Your task to perform on an android device: Add "logitech g502" to the cart on walmart Image 0: 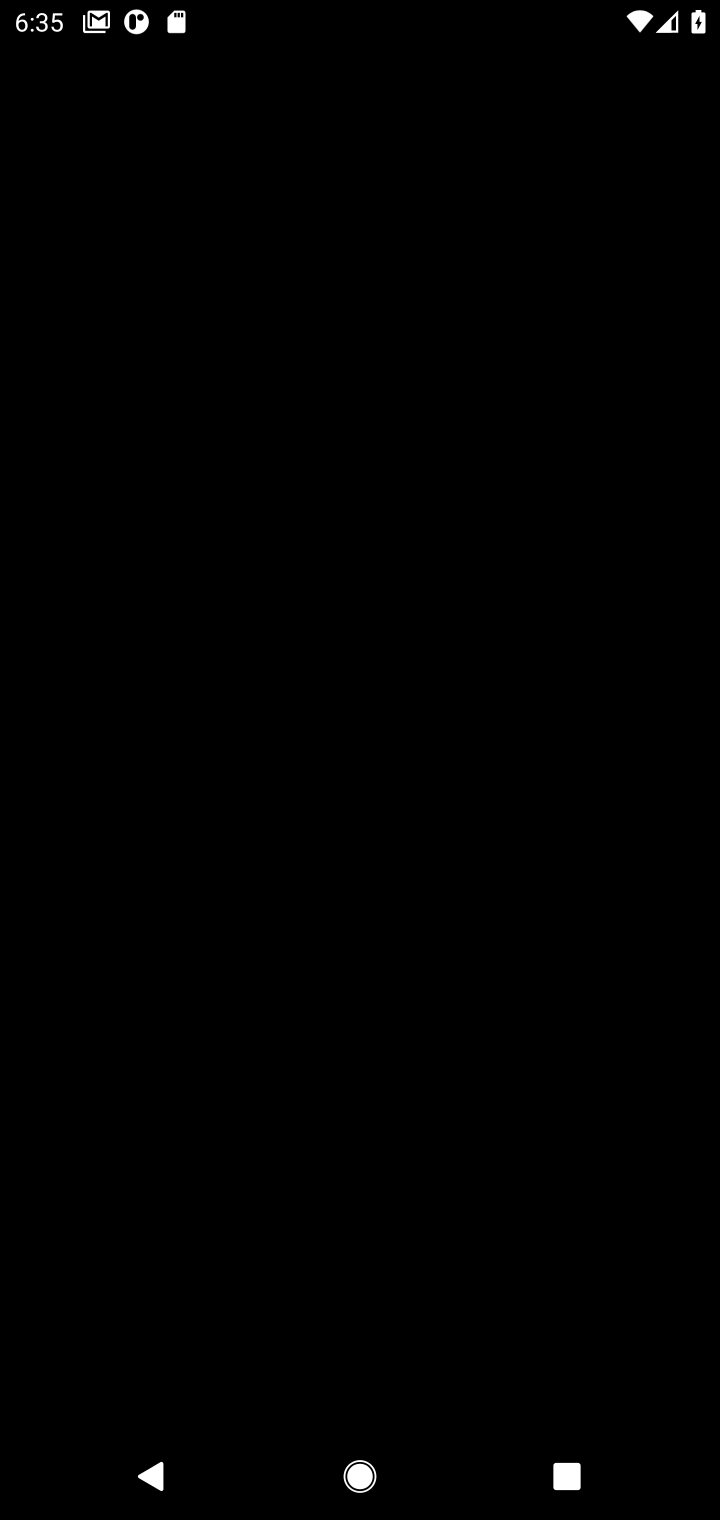
Step 0: press home button
Your task to perform on an android device: Add "logitech g502" to the cart on walmart Image 1: 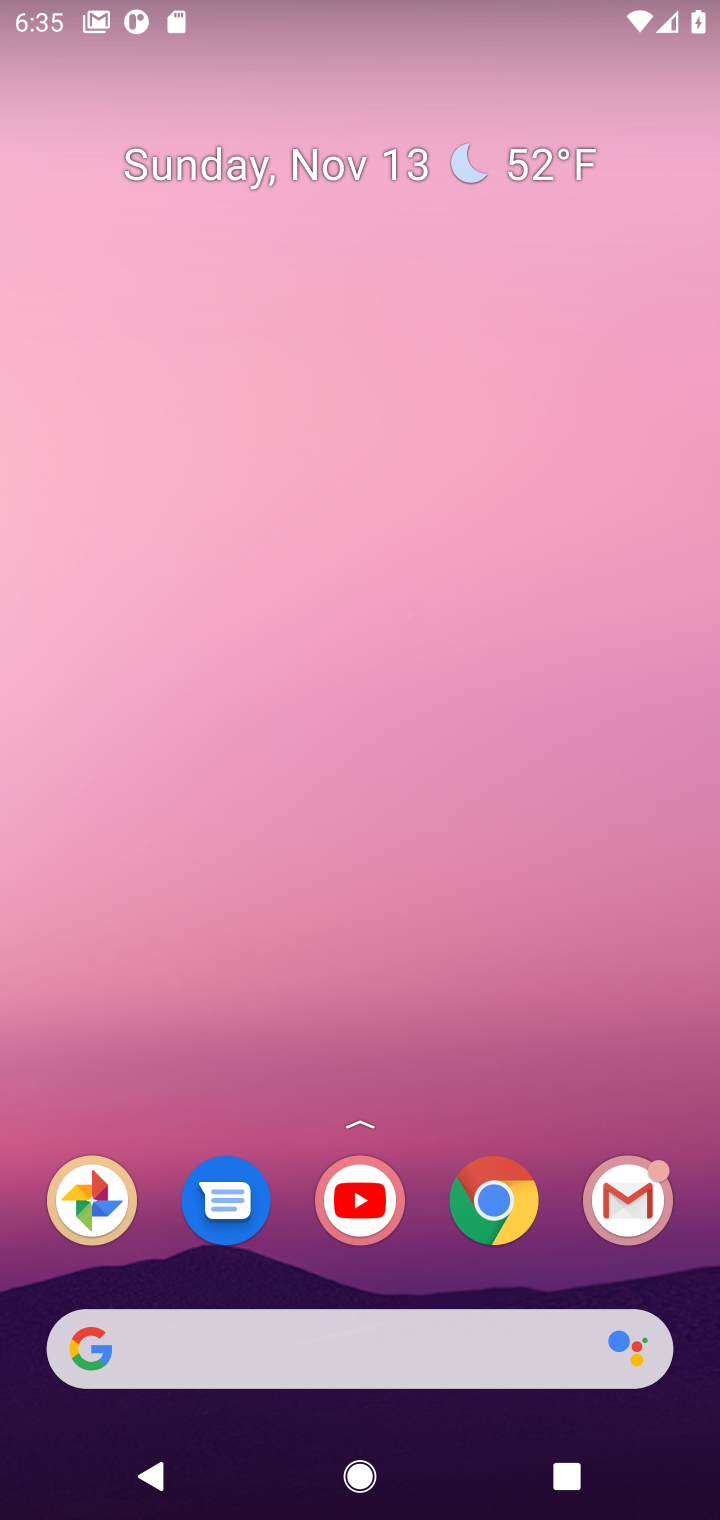
Step 1: press home button
Your task to perform on an android device: Add "logitech g502" to the cart on walmart Image 2: 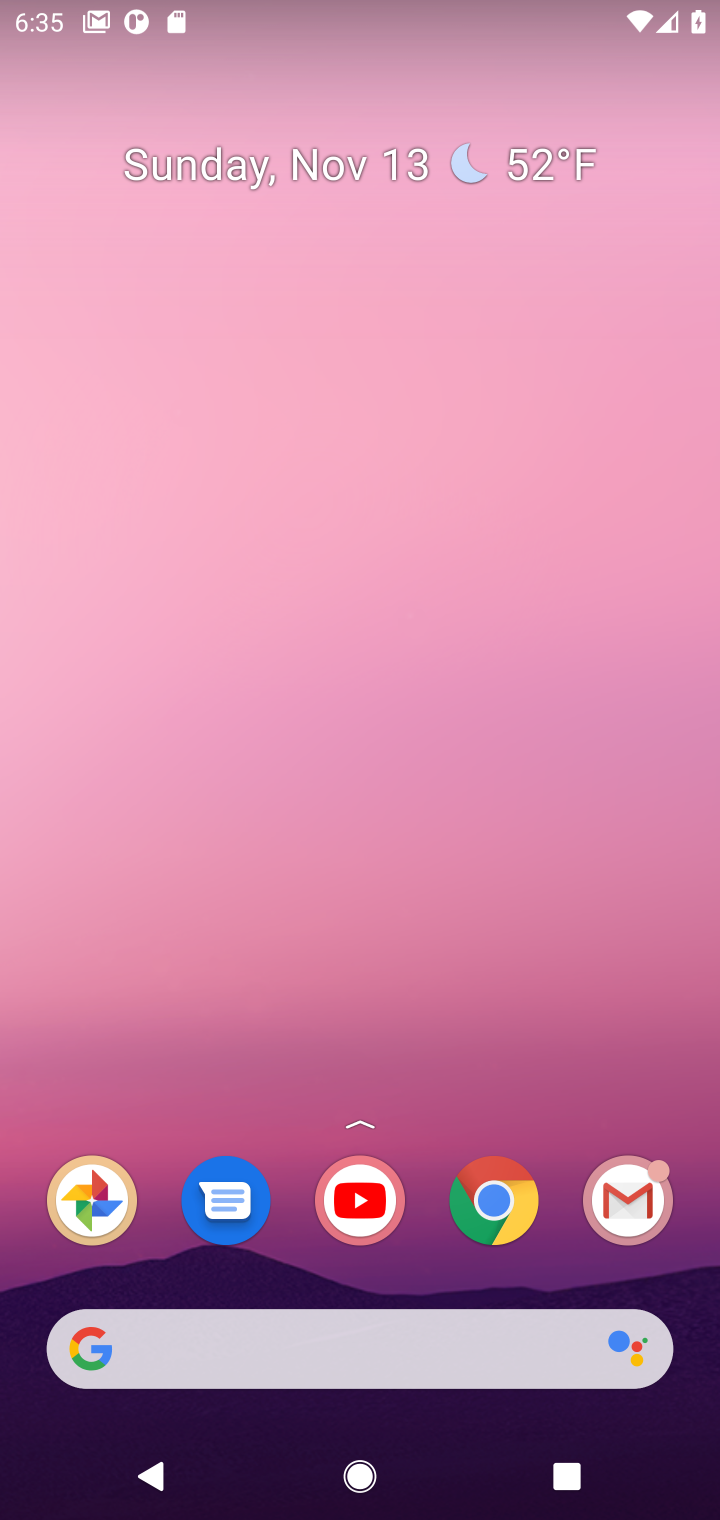
Step 2: click (485, 1182)
Your task to perform on an android device: Add "logitech g502" to the cart on walmart Image 3: 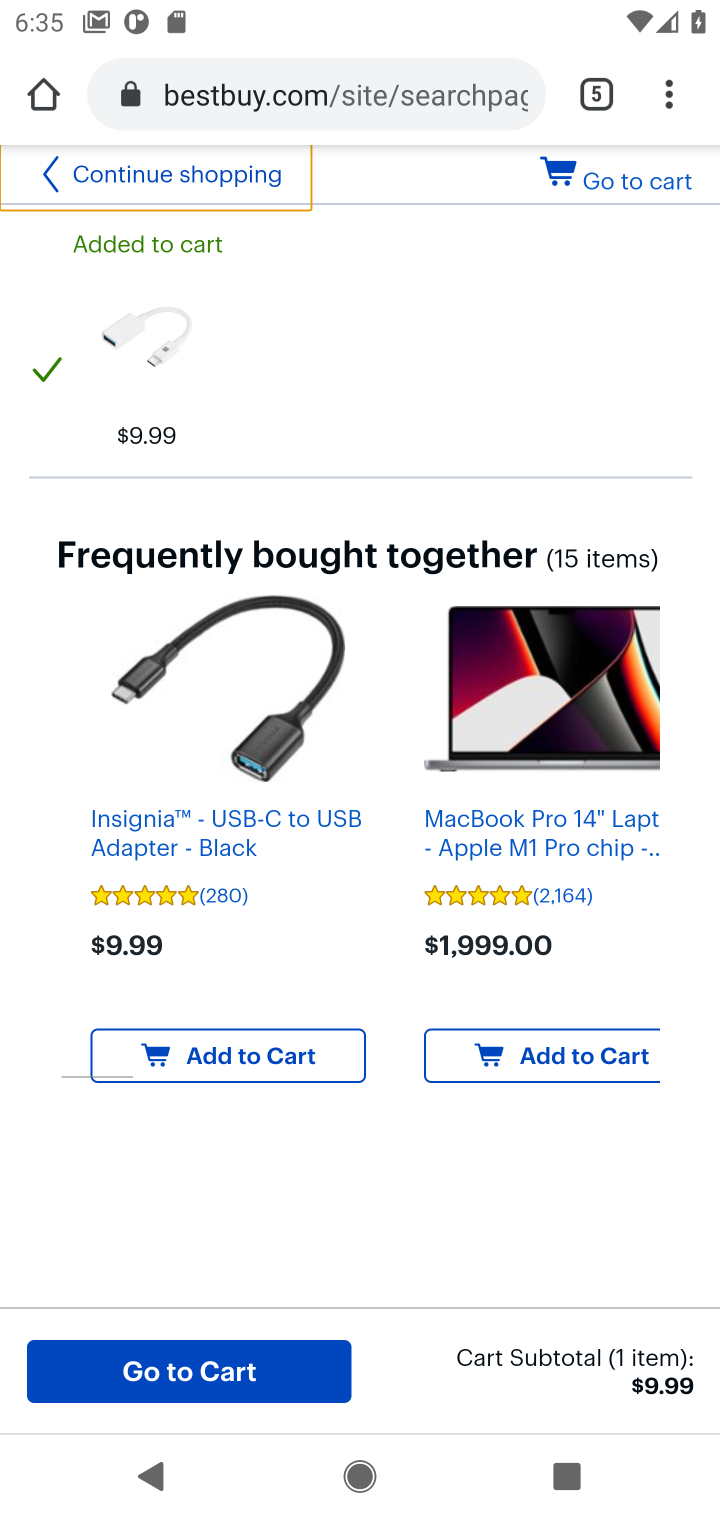
Step 3: click (587, 89)
Your task to perform on an android device: Add "logitech g502" to the cart on walmart Image 4: 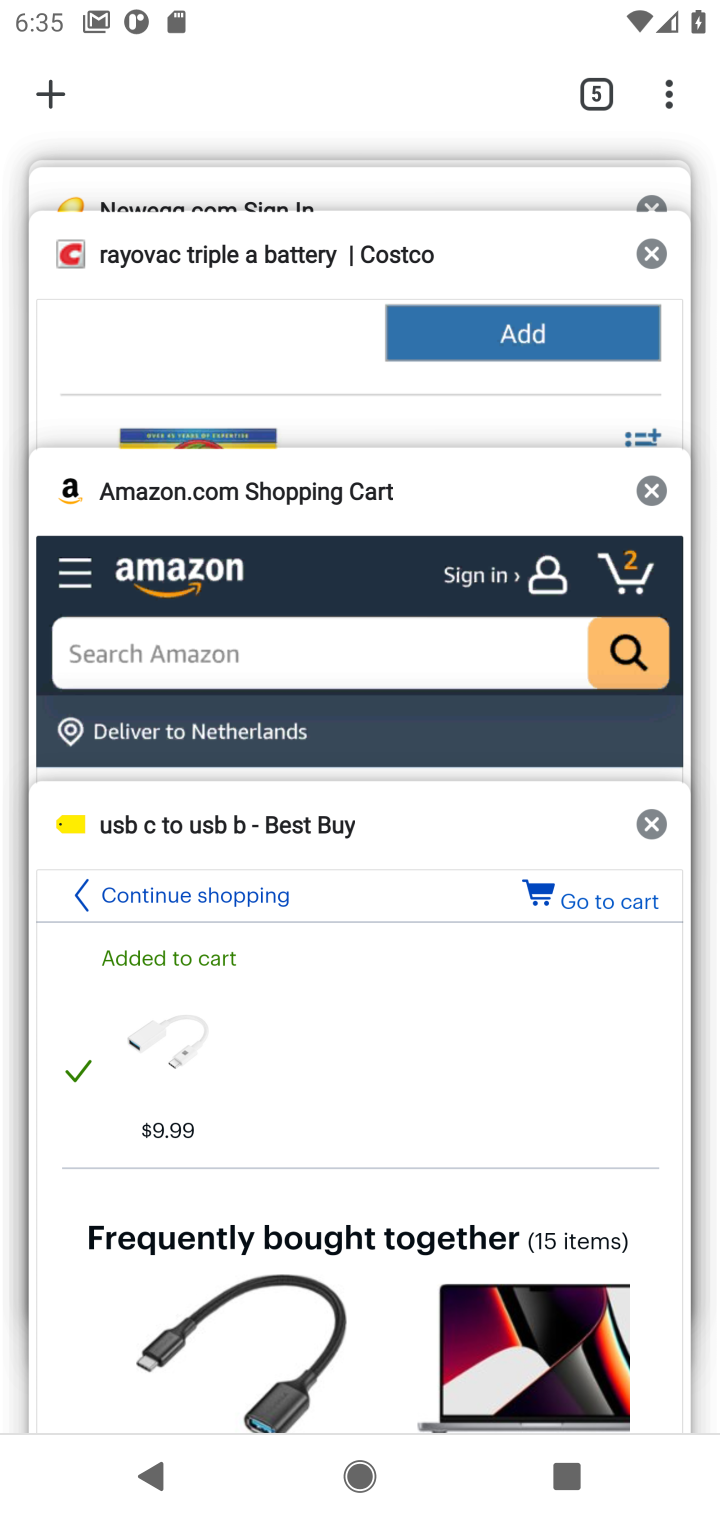
Step 4: click (49, 92)
Your task to perform on an android device: Add "logitech g502" to the cart on walmart Image 5: 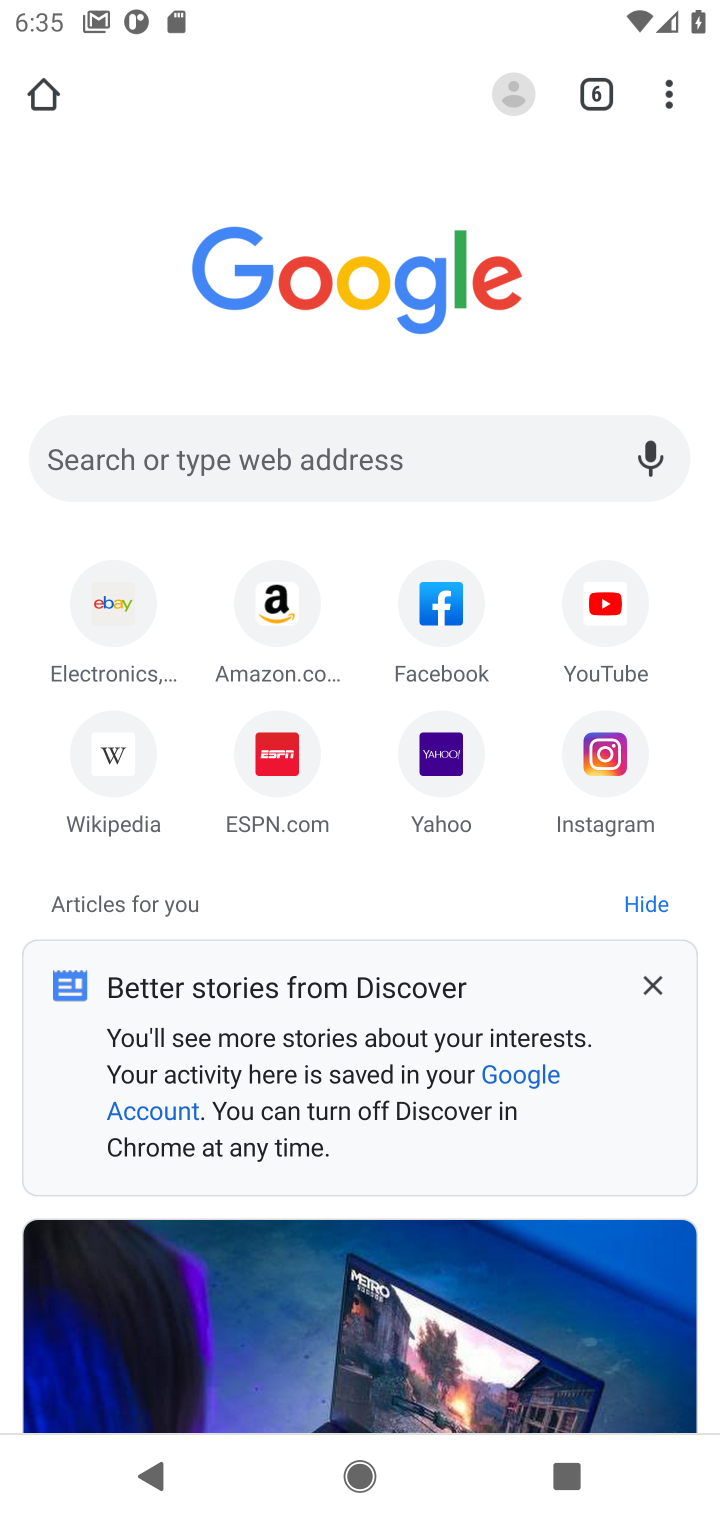
Step 5: click (225, 453)
Your task to perform on an android device: Add "logitech g502" to the cart on walmart Image 6: 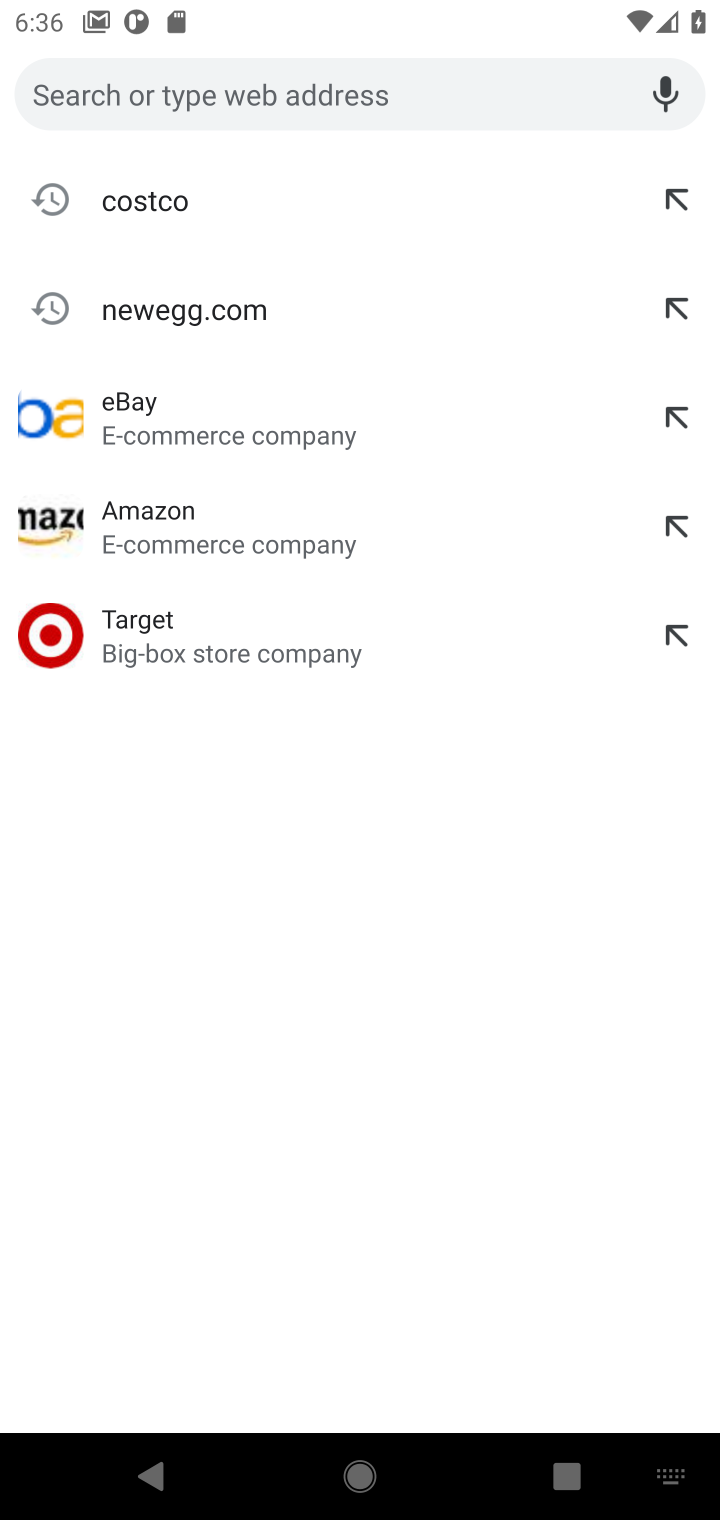
Step 6: type "walmart"
Your task to perform on an android device: Add "logitech g502" to the cart on walmart Image 7: 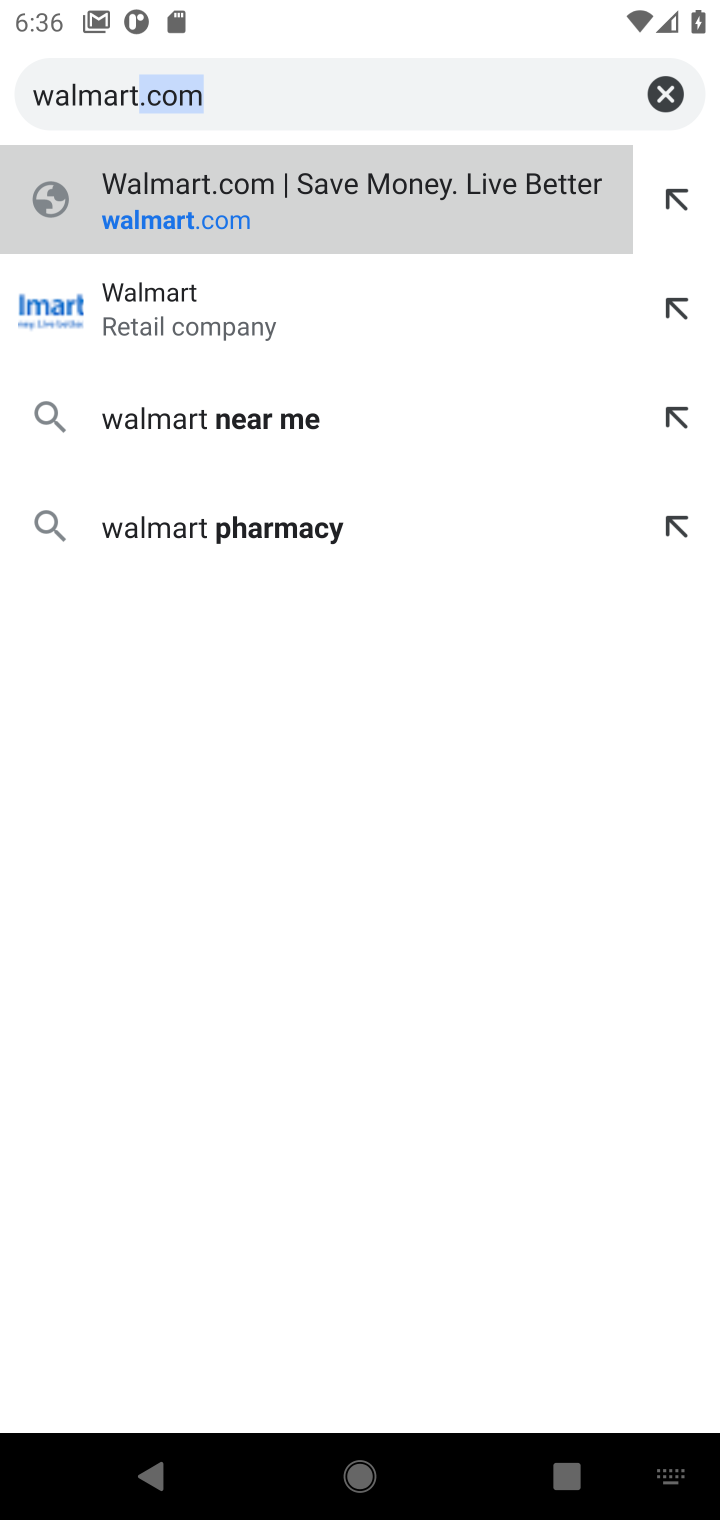
Step 7: click (189, 211)
Your task to perform on an android device: Add "logitech g502" to the cart on walmart Image 8: 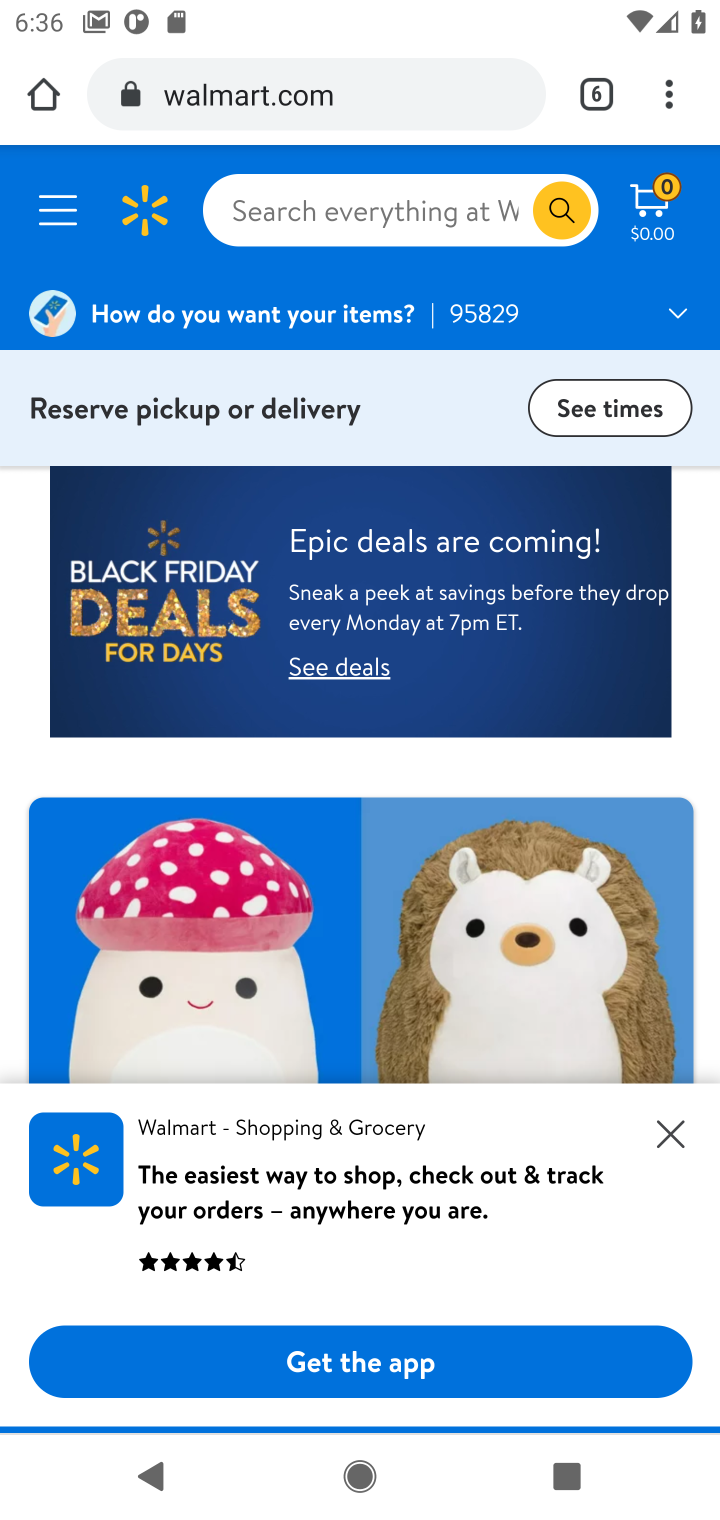
Step 8: click (306, 216)
Your task to perform on an android device: Add "logitech g502" to the cart on walmart Image 9: 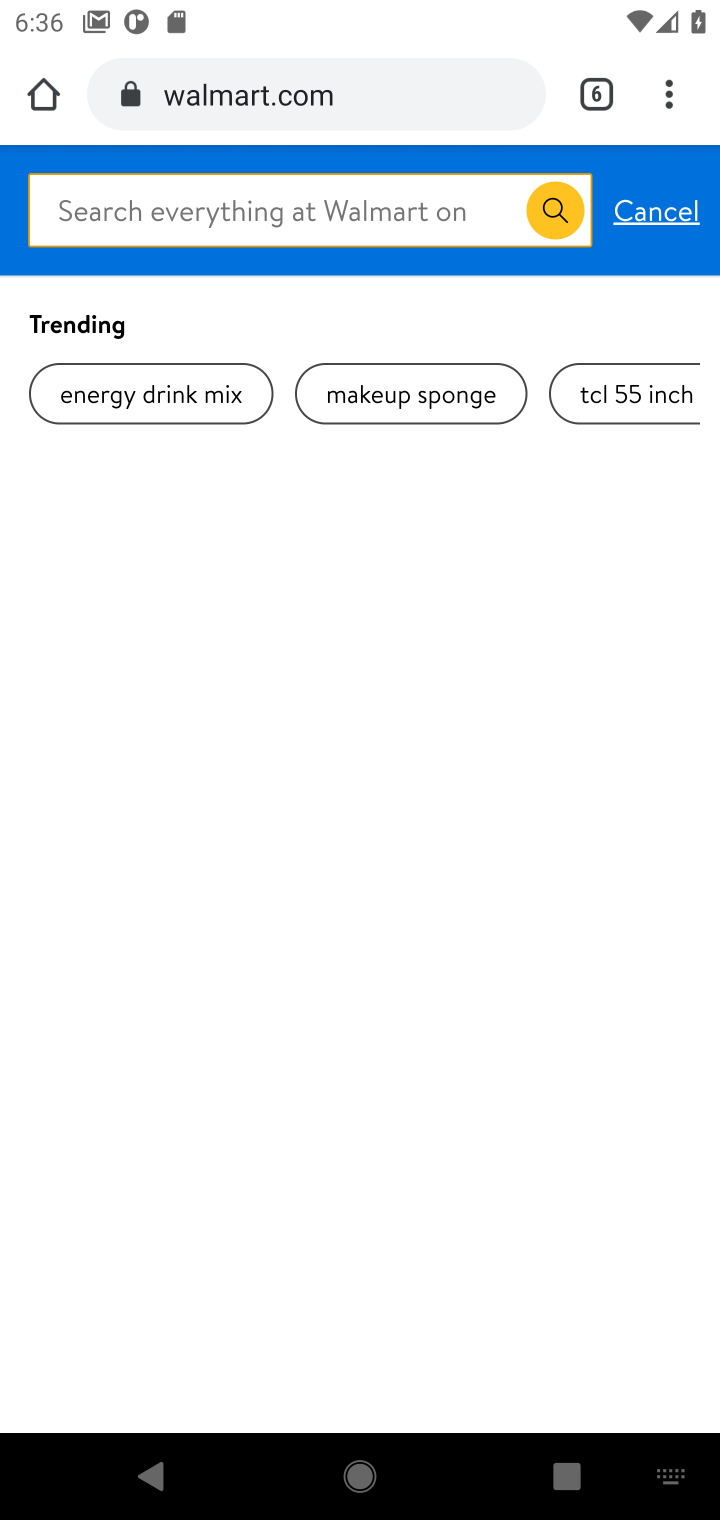
Step 9: type "logitech g502"
Your task to perform on an android device: Add "logitech g502" to the cart on walmart Image 10: 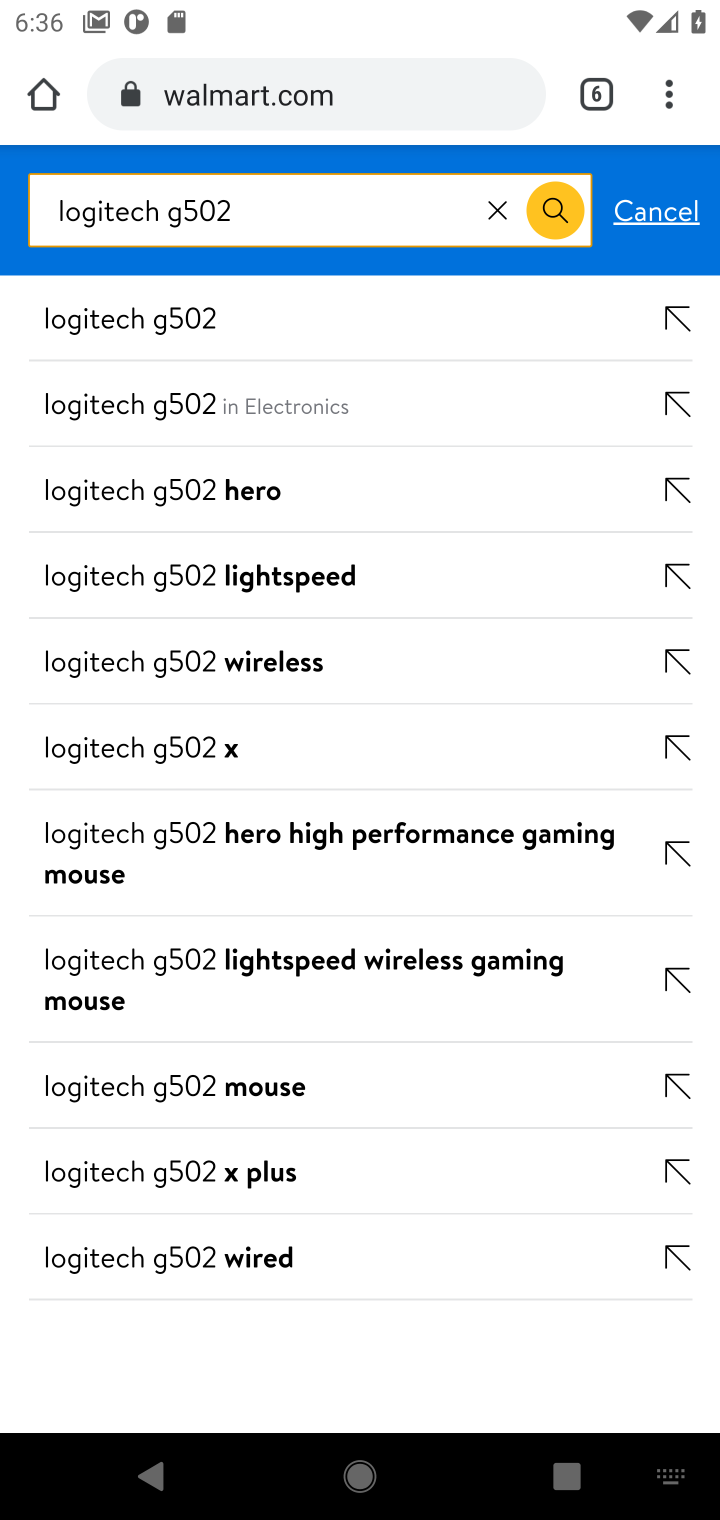
Step 10: click (164, 394)
Your task to perform on an android device: Add "logitech g502" to the cart on walmart Image 11: 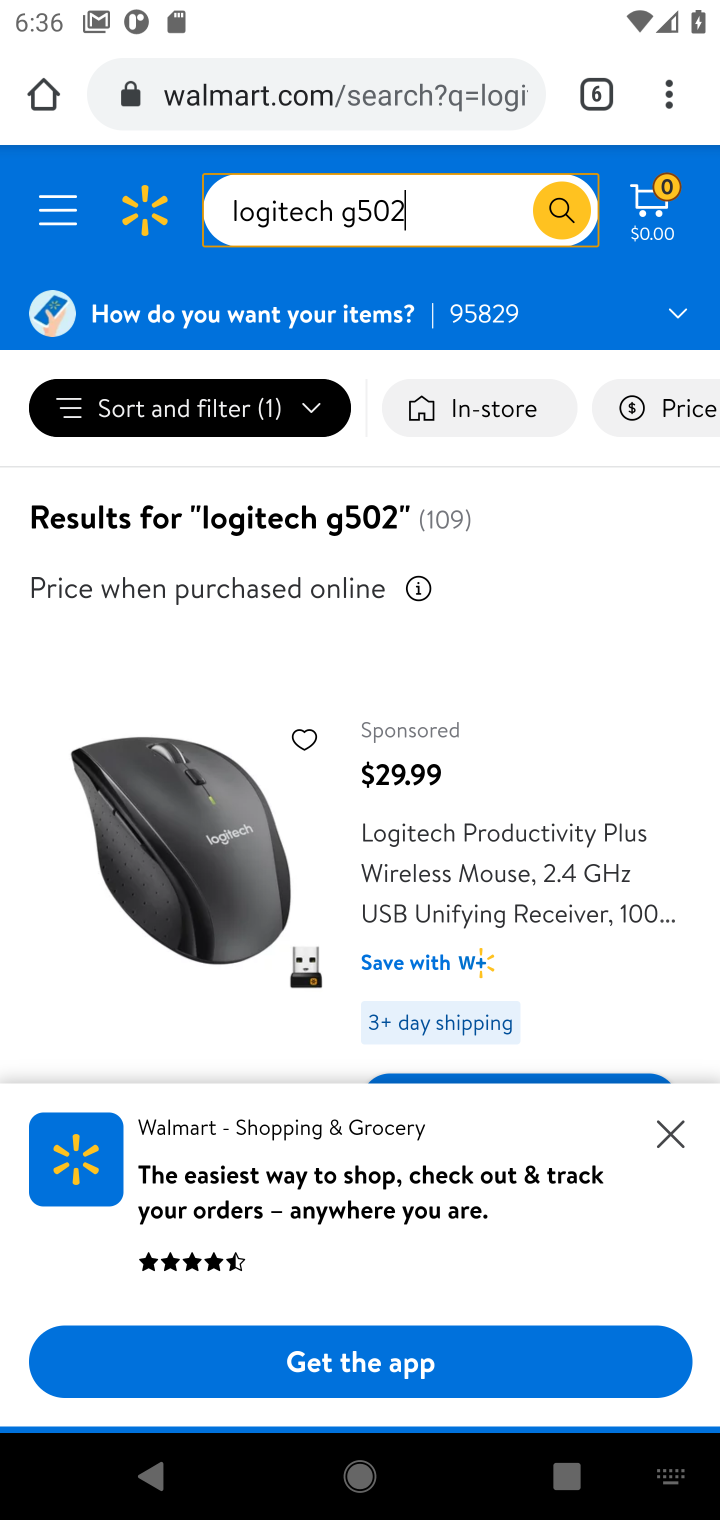
Step 11: click (665, 1127)
Your task to perform on an android device: Add "logitech g502" to the cart on walmart Image 12: 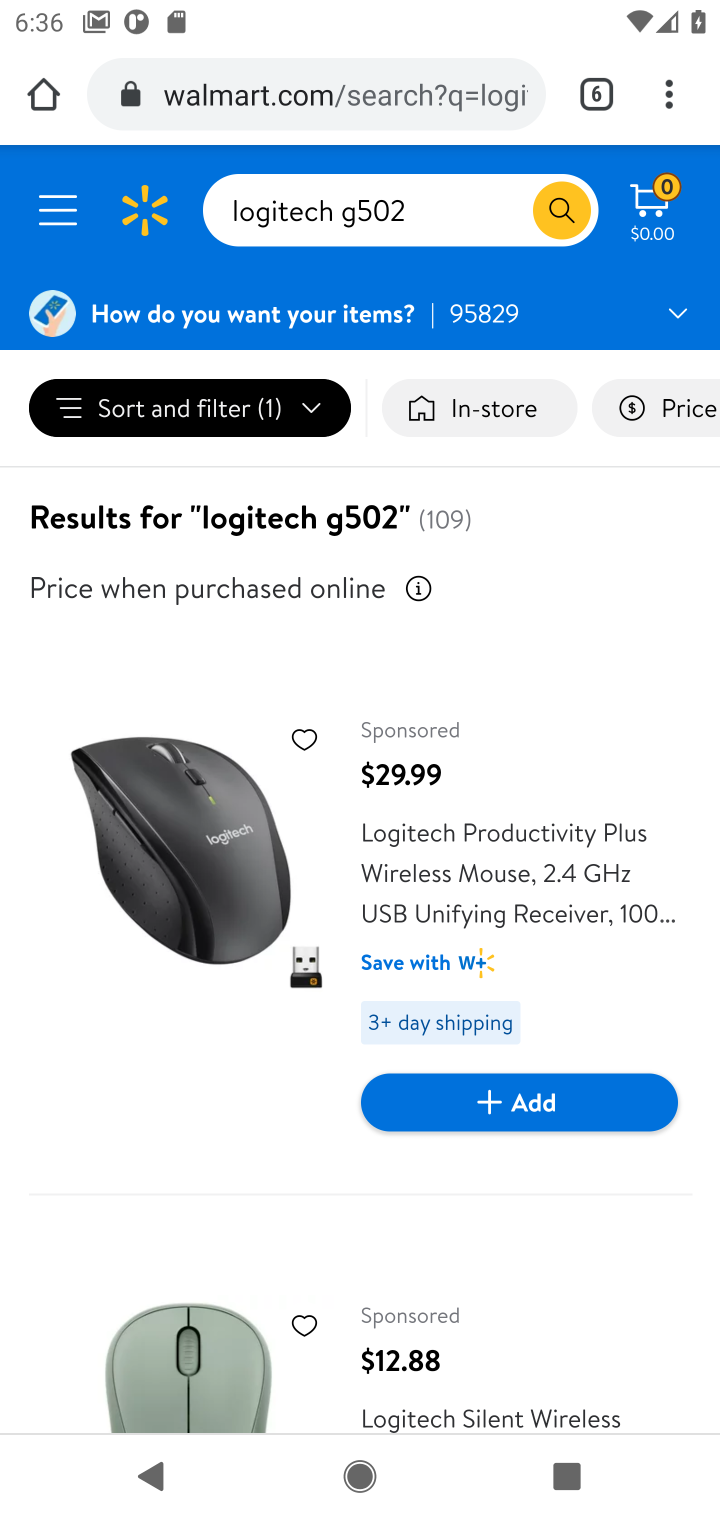
Step 12: drag from (276, 1188) to (496, 162)
Your task to perform on an android device: Add "logitech g502" to the cart on walmart Image 13: 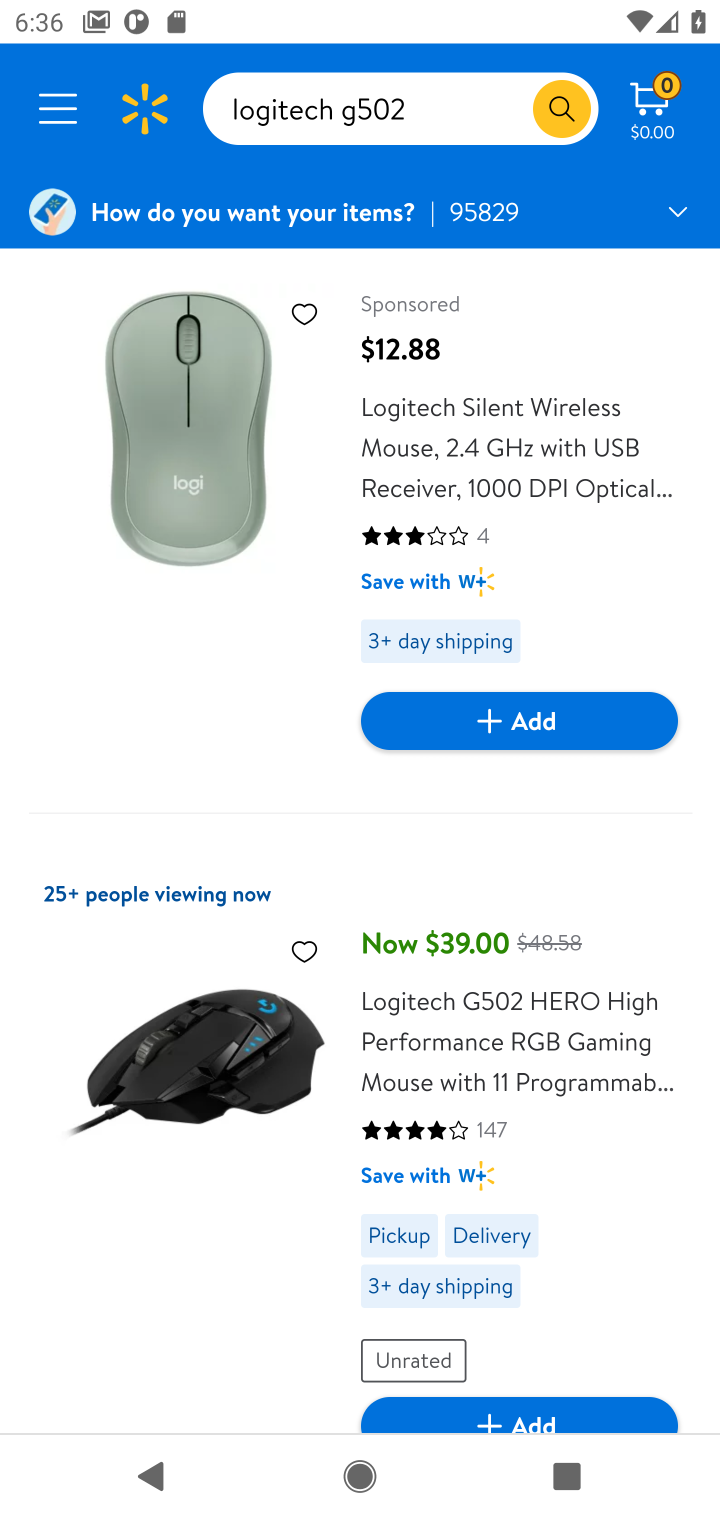
Step 13: drag from (257, 1343) to (352, 728)
Your task to perform on an android device: Add "logitech g502" to the cart on walmart Image 14: 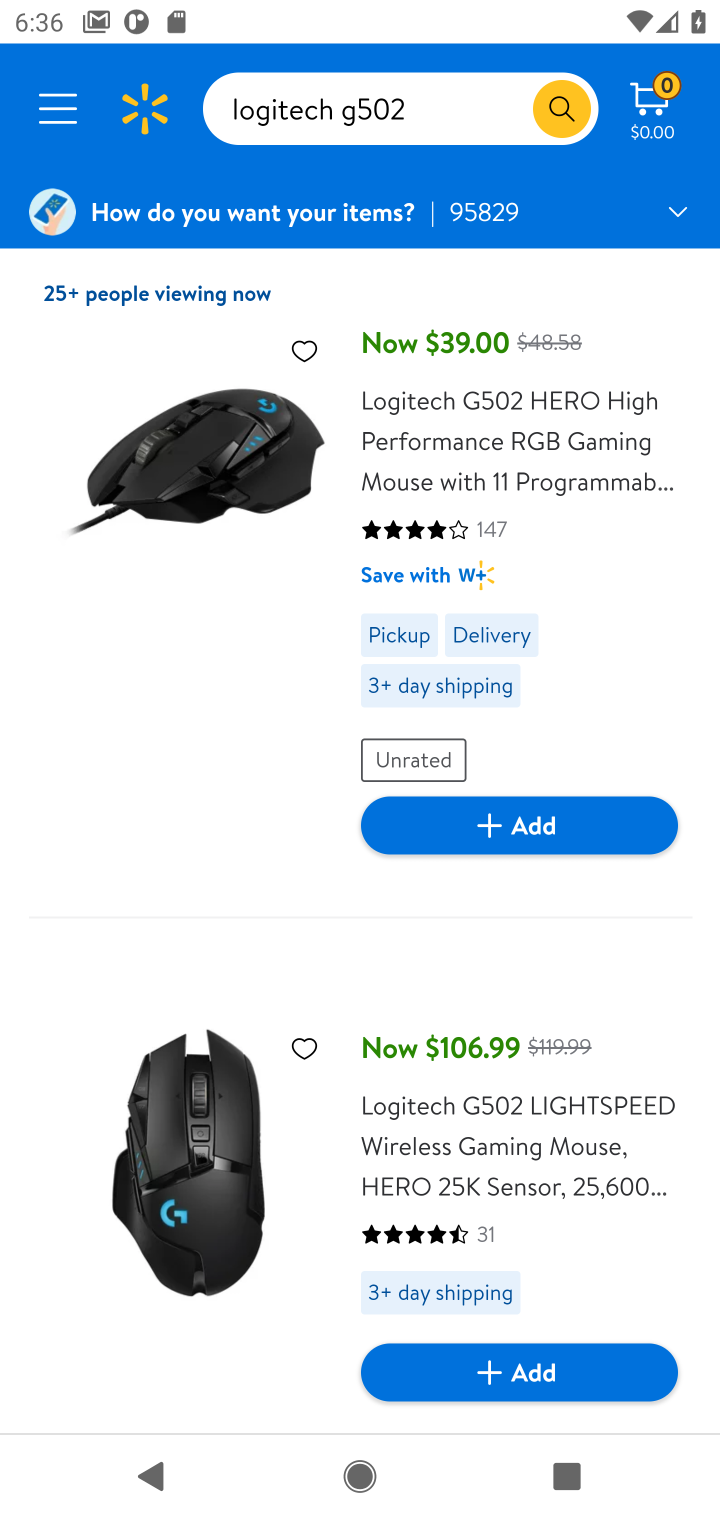
Step 14: click (551, 826)
Your task to perform on an android device: Add "logitech g502" to the cart on walmart Image 15: 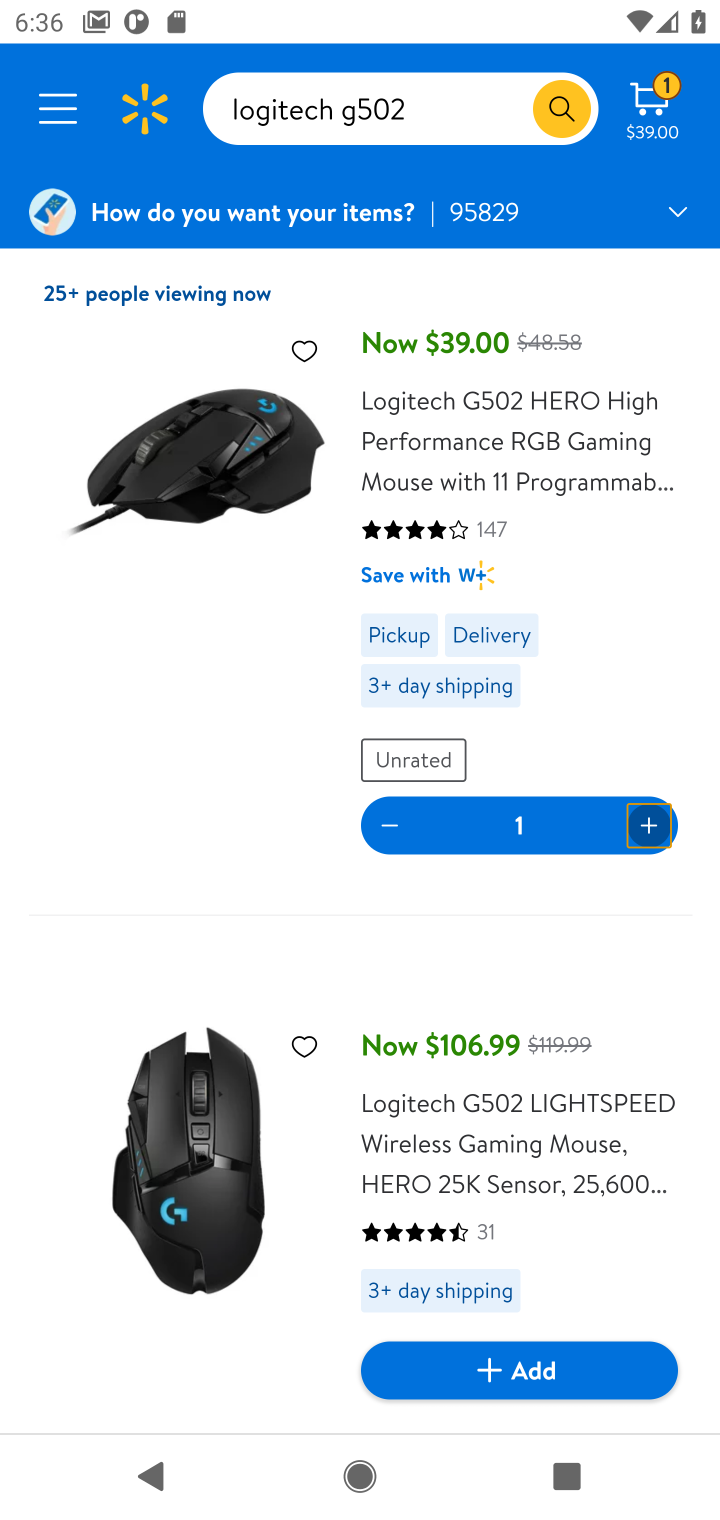
Step 15: task complete